Your task to perform on an android device: create a new album in the google photos Image 0: 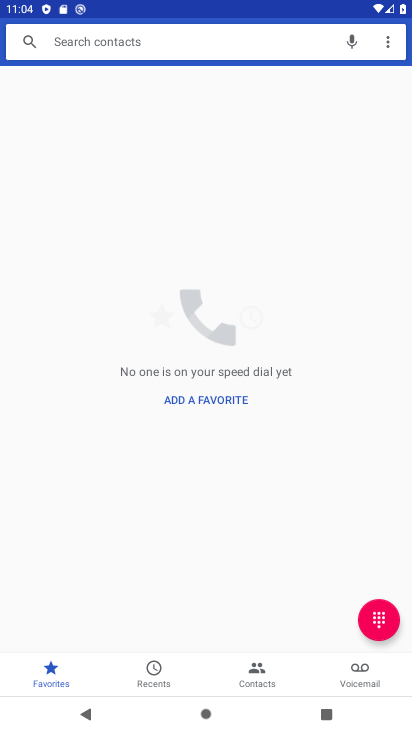
Step 0: press home button
Your task to perform on an android device: create a new album in the google photos Image 1: 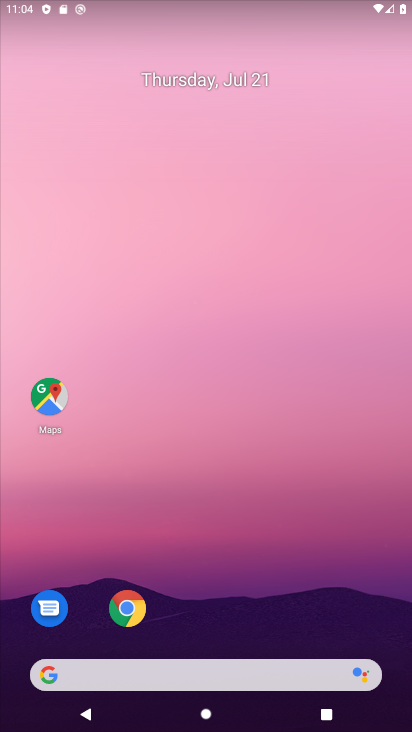
Step 1: drag from (290, 603) to (257, 174)
Your task to perform on an android device: create a new album in the google photos Image 2: 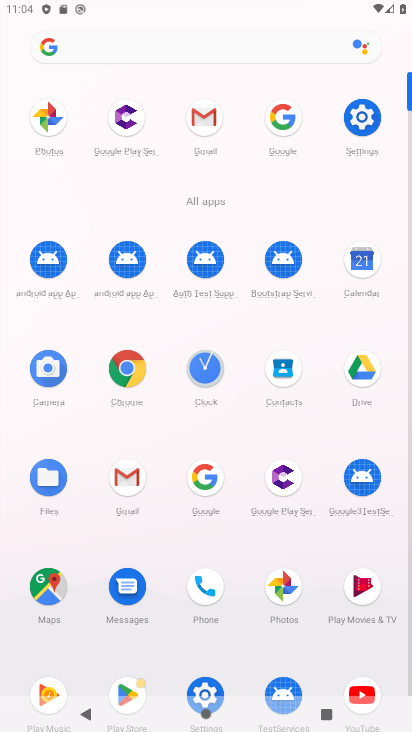
Step 2: click (280, 579)
Your task to perform on an android device: create a new album in the google photos Image 3: 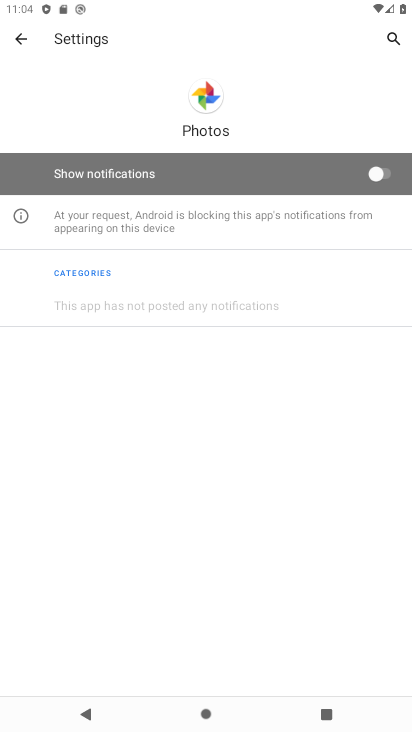
Step 3: click (22, 41)
Your task to perform on an android device: create a new album in the google photos Image 4: 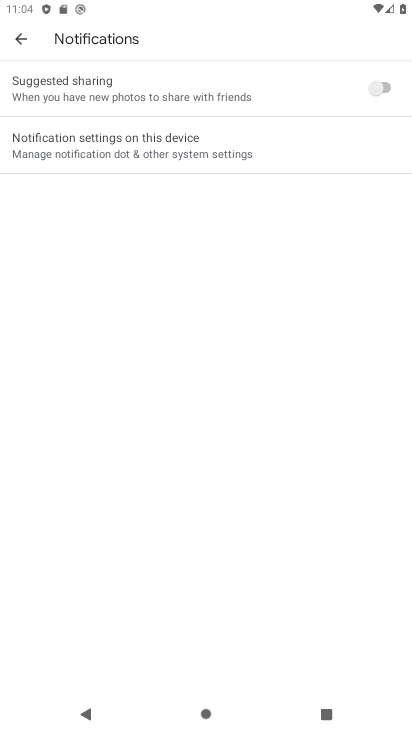
Step 4: click (26, 46)
Your task to perform on an android device: create a new album in the google photos Image 5: 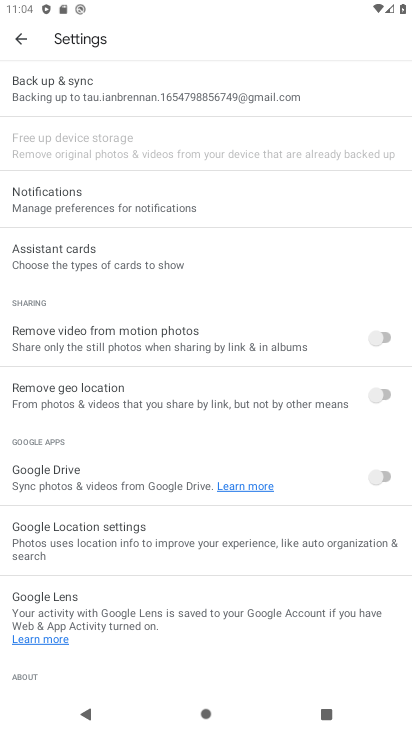
Step 5: click (20, 43)
Your task to perform on an android device: create a new album in the google photos Image 6: 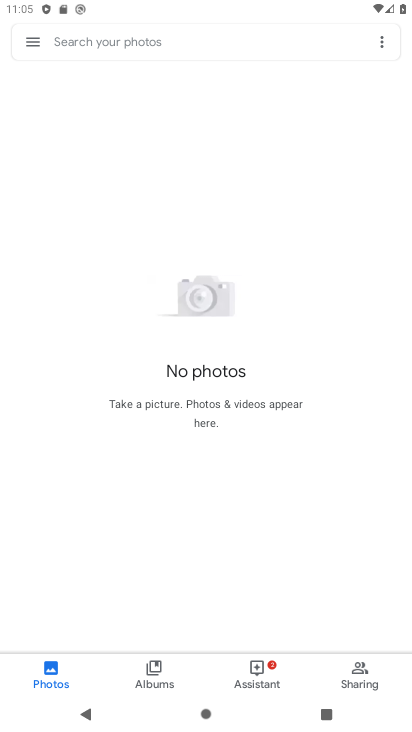
Step 6: task complete